Your task to perform on an android device: change the clock display to digital Image 0: 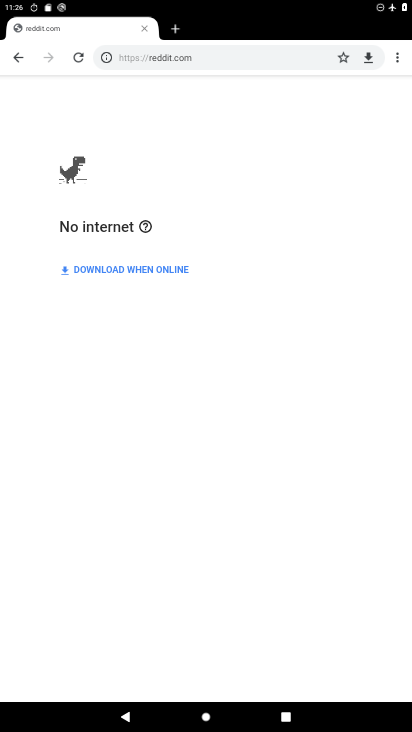
Step 0: press home button
Your task to perform on an android device: change the clock display to digital Image 1: 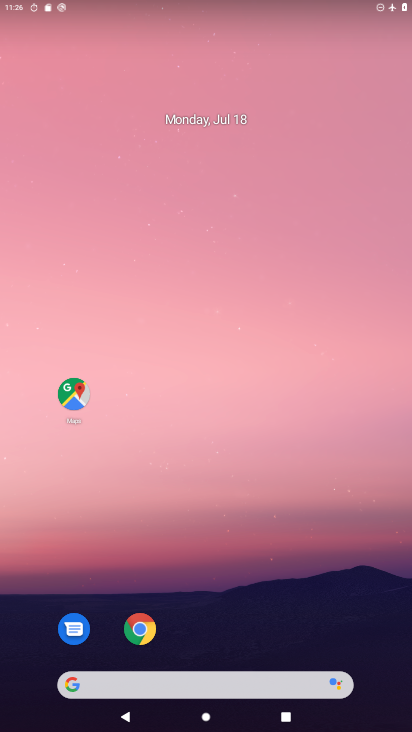
Step 1: drag from (282, 579) to (206, 45)
Your task to perform on an android device: change the clock display to digital Image 2: 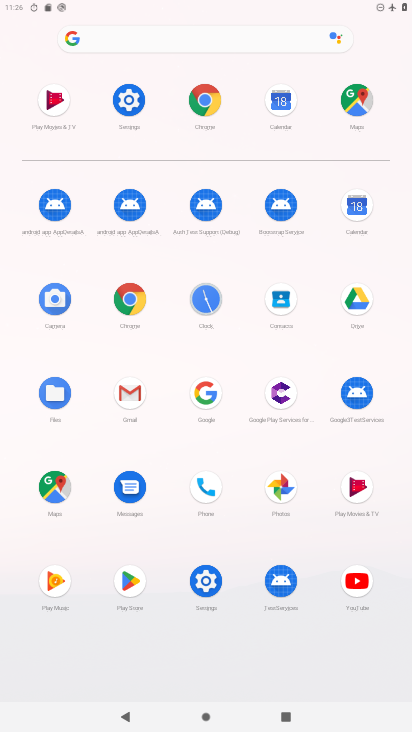
Step 2: click (206, 309)
Your task to perform on an android device: change the clock display to digital Image 3: 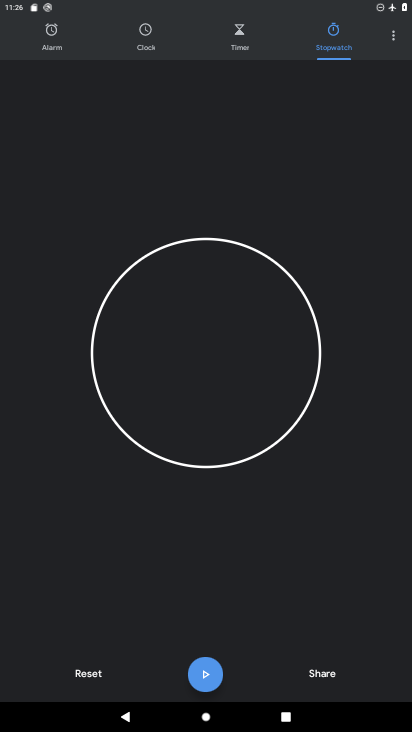
Step 3: click (395, 37)
Your task to perform on an android device: change the clock display to digital Image 4: 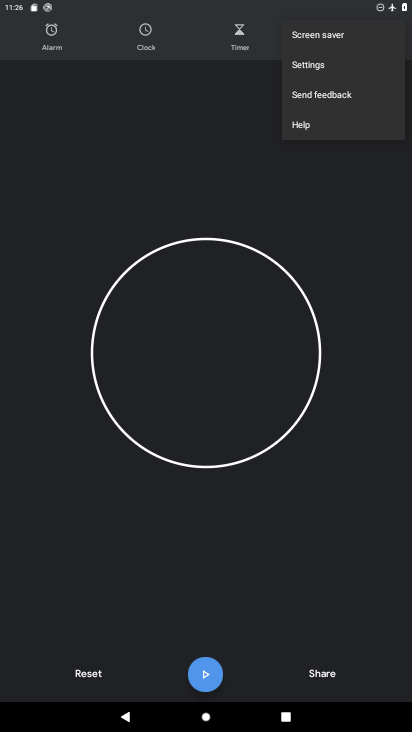
Step 4: click (329, 68)
Your task to perform on an android device: change the clock display to digital Image 5: 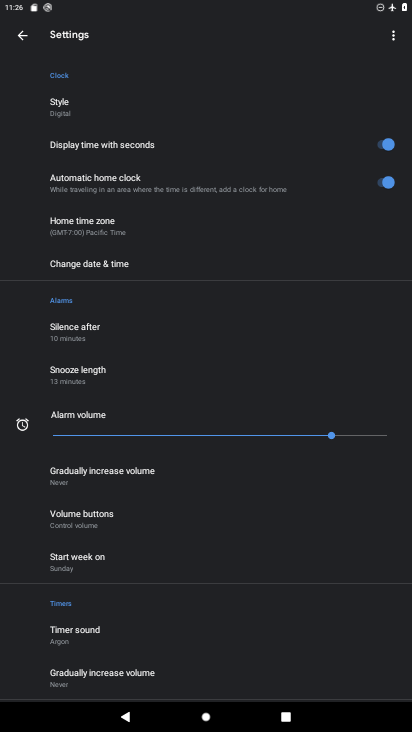
Step 5: task complete